Your task to perform on an android device: turn on the 12-hour format for clock Image 0: 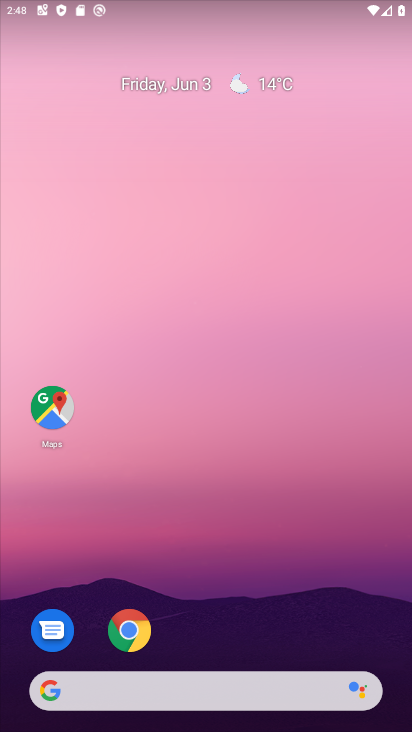
Step 0: drag from (350, 647) to (233, 226)
Your task to perform on an android device: turn on the 12-hour format for clock Image 1: 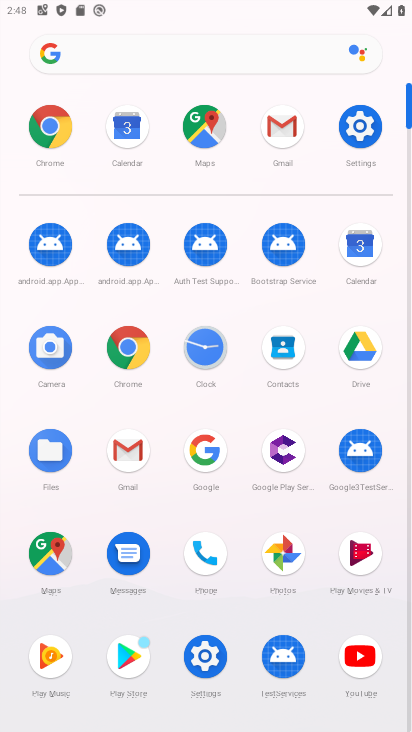
Step 1: click (216, 361)
Your task to perform on an android device: turn on the 12-hour format for clock Image 2: 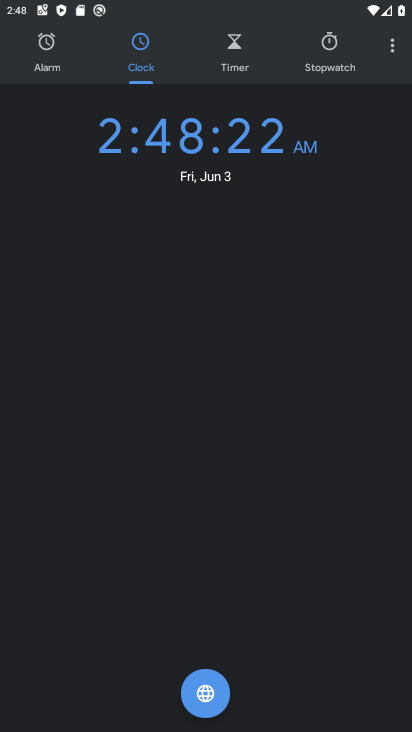
Step 2: click (399, 47)
Your task to perform on an android device: turn on the 12-hour format for clock Image 3: 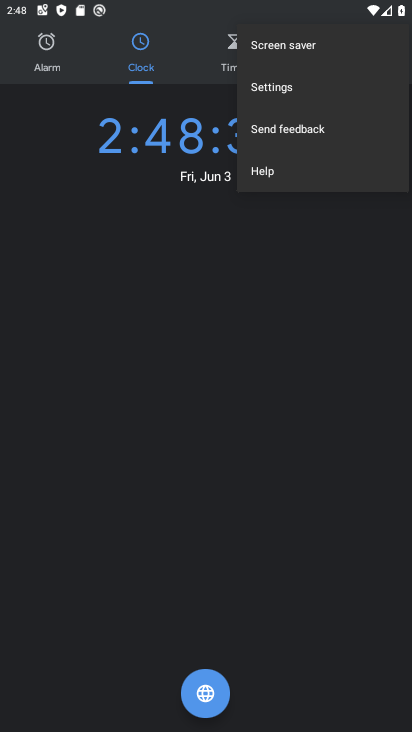
Step 3: click (286, 90)
Your task to perform on an android device: turn on the 12-hour format for clock Image 4: 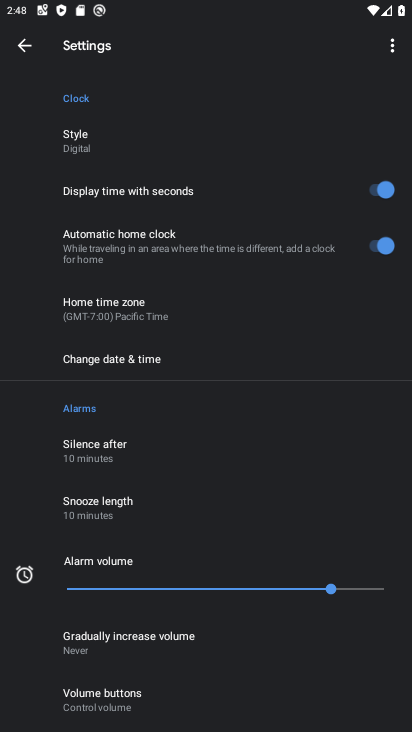
Step 4: click (230, 368)
Your task to perform on an android device: turn on the 12-hour format for clock Image 5: 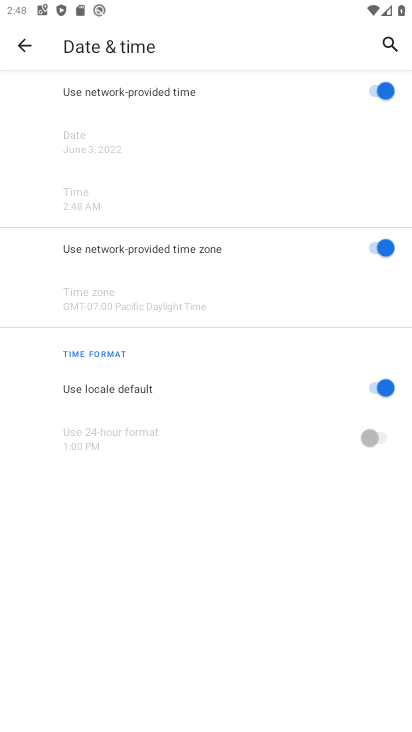
Step 5: task complete